Your task to perform on an android device: move an email to a new category in the gmail app Image 0: 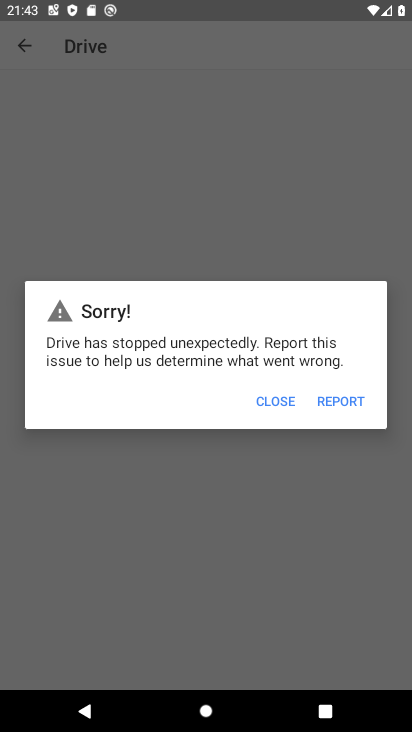
Step 0: press home button
Your task to perform on an android device: move an email to a new category in the gmail app Image 1: 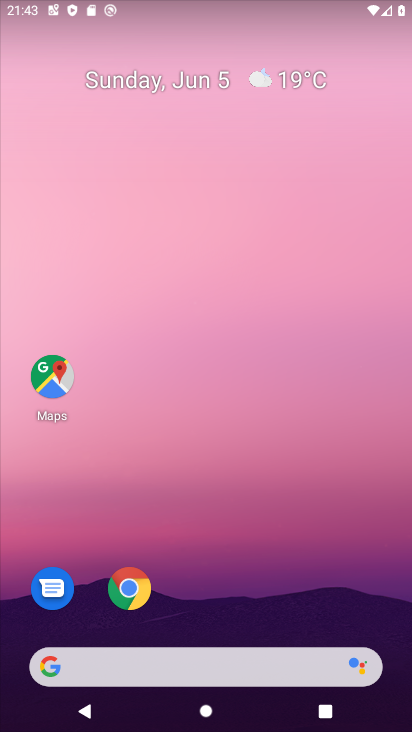
Step 1: drag from (352, 612) to (373, 150)
Your task to perform on an android device: move an email to a new category in the gmail app Image 2: 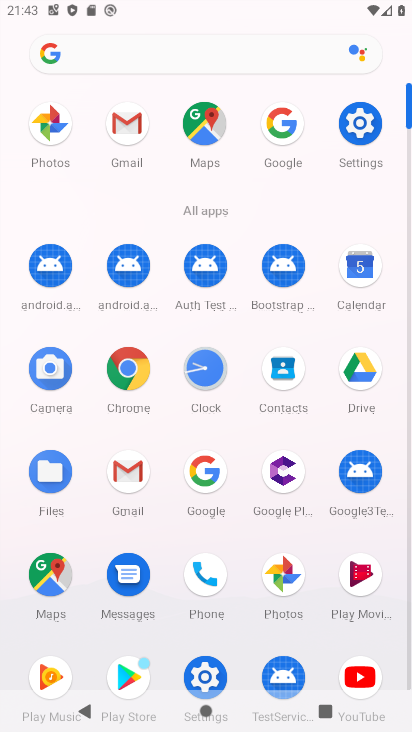
Step 2: click (134, 473)
Your task to perform on an android device: move an email to a new category in the gmail app Image 3: 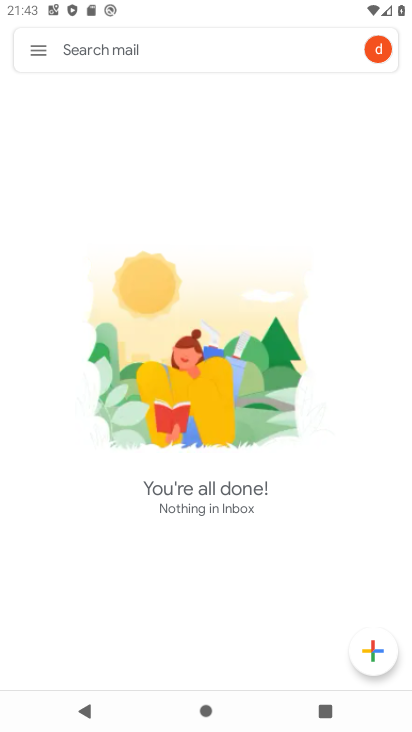
Step 3: press home button
Your task to perform on an android device: move an email to a new category in the gmail app Image 4: 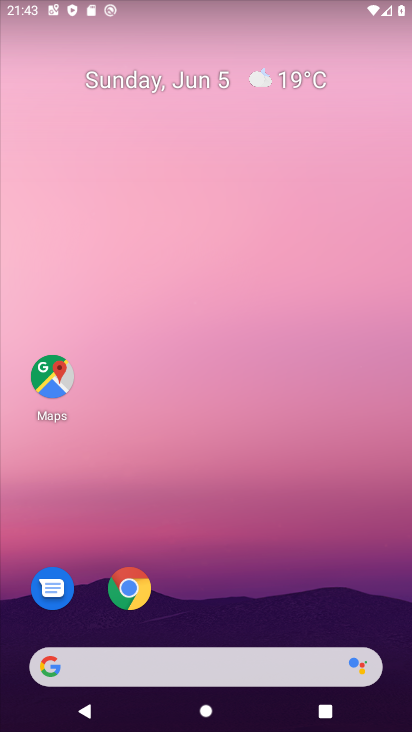
Step 4: drag from (355, 577) to (360, 98)
Your task to perform on an android device: move an email to a new category in the gmail app Image 5: 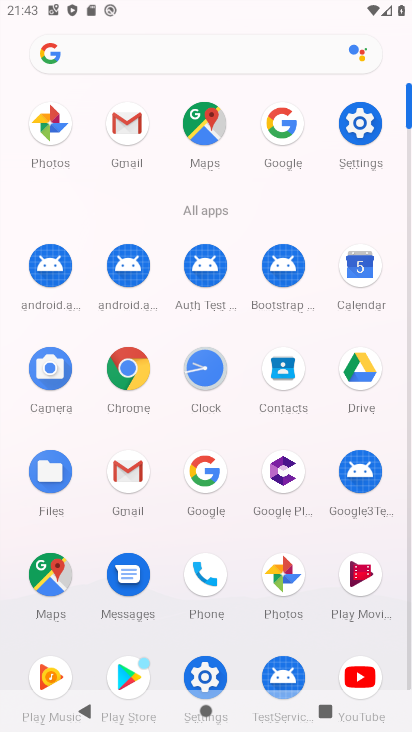
Step 5: click (130, 472)
Your task to perform on an android device: move an email to a new category in the gmail app Image 6: 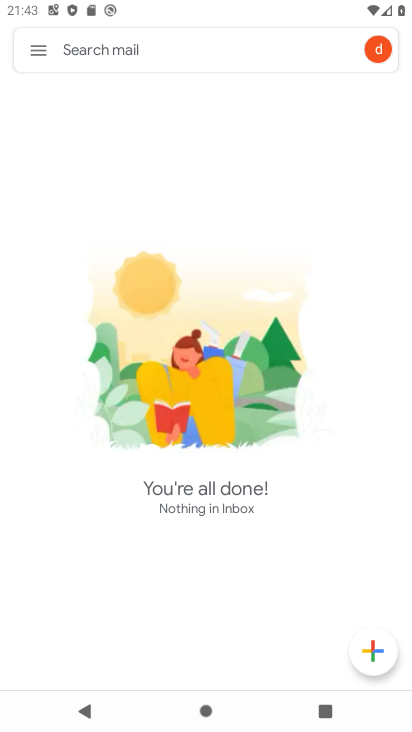
Step 6: task complete